Your task to perform on an android device: Check the news Image 0: 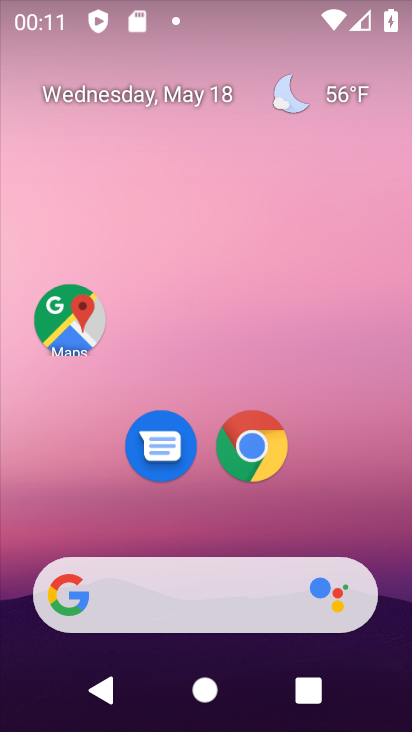
Step 0: drag from (12, 228) to (401, 477)
Your task to perform on an android device: Check the news Image 1: 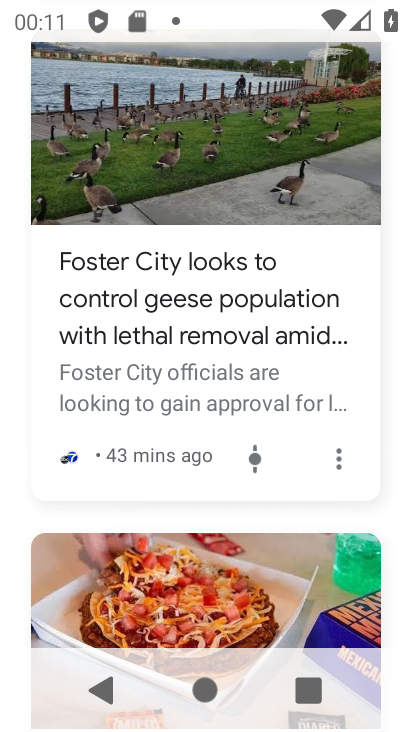
Step 1: task complete